Your task to perform on an android device: delete location history Image 0: 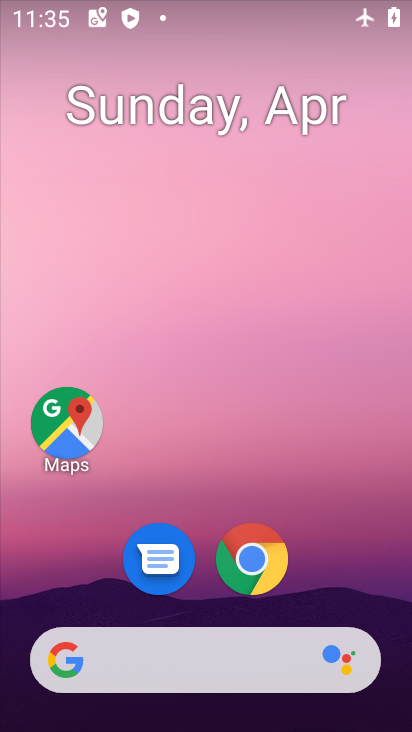
Step 0: drag from (325, 547) to (324, 52)
Your task to perform on an android device: delete location history Image 1: 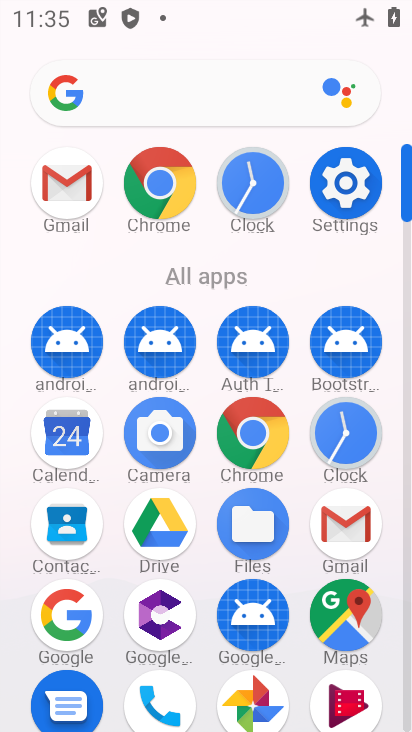
Step 1: click (332, 608)
Your task to perform on an android device: delete location history Image 2: 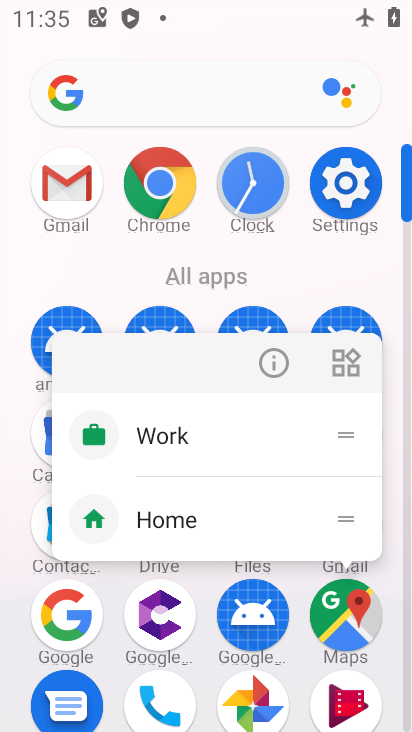
Step 2: click (332, 608)
Your task to perform on an android device: delete location history Image 3: 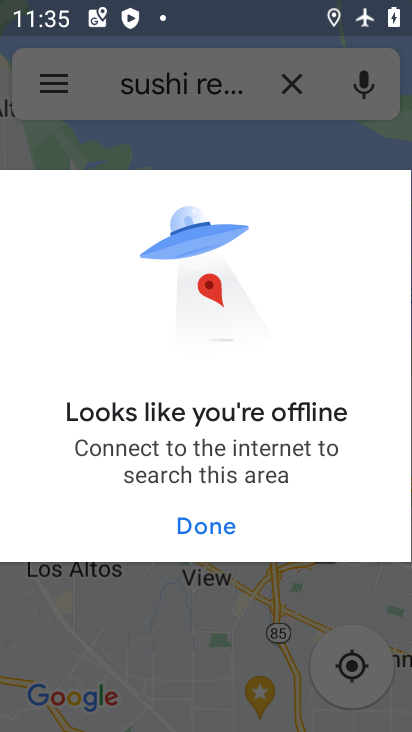
Step 3: press back button
Your task to perform on an android device: delete location history Image 4: 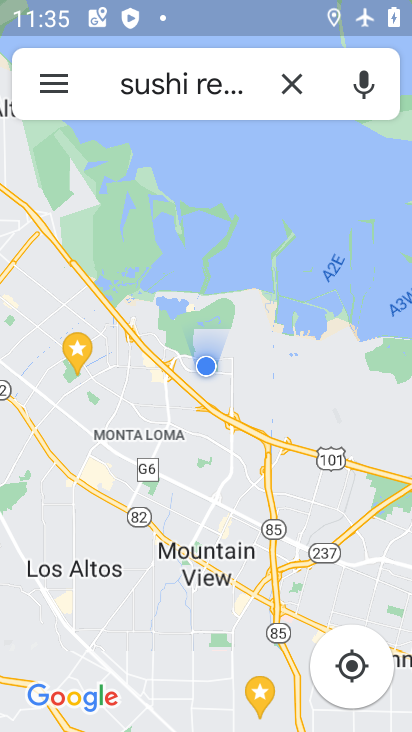
Step 4: click (54, 95)
Your task to perform on an android device: delete location history Image 5: 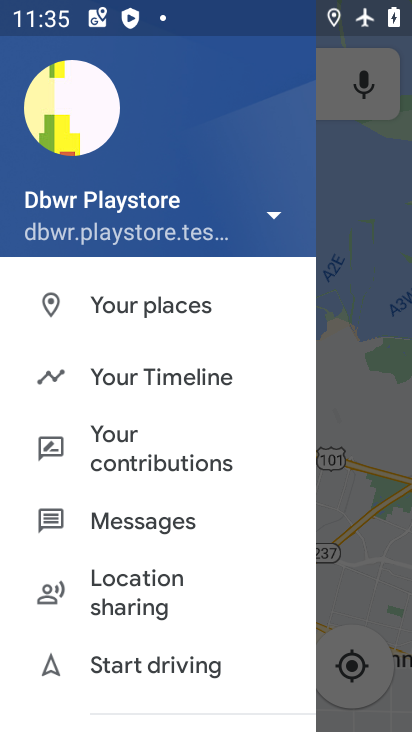
Step 5: click (146, 378)
Your task to perform on an android device: delete location history Image 6: 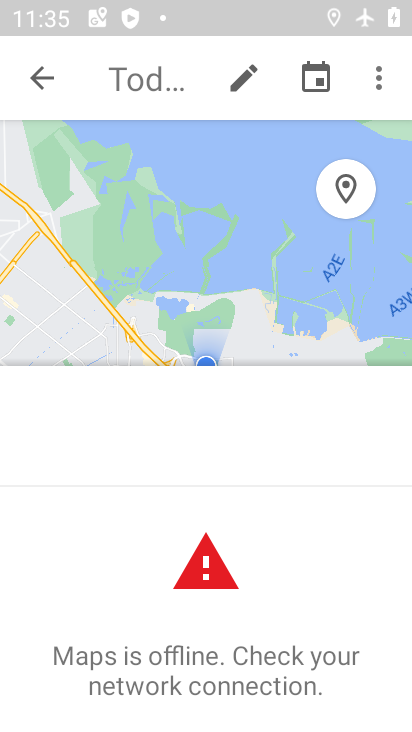
Step 6: click (371, 69)
Your task to perform on an android device: delete location history Image 7: 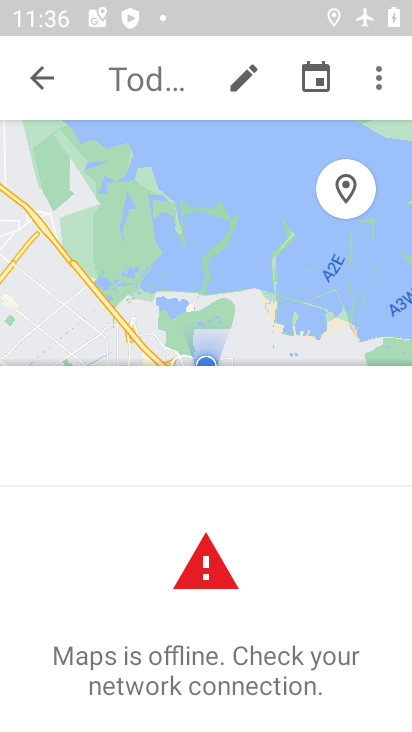
Step 7: click (371, 69)
Your task to perform on an android device: delete location history Image 8: 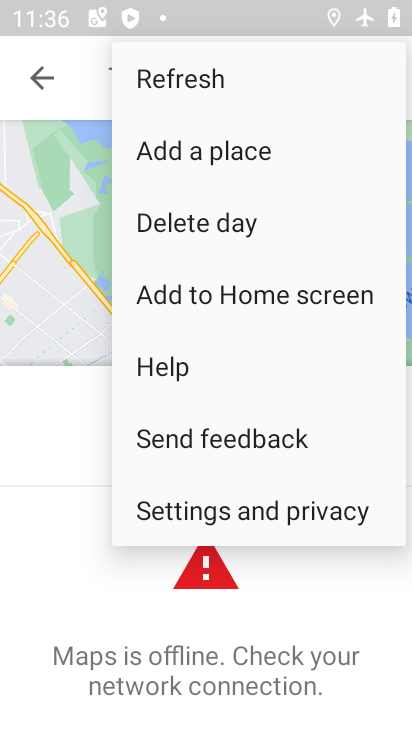
Step 8: click (178, 522)
Your task to perform on an android device: delete location history Image 9: 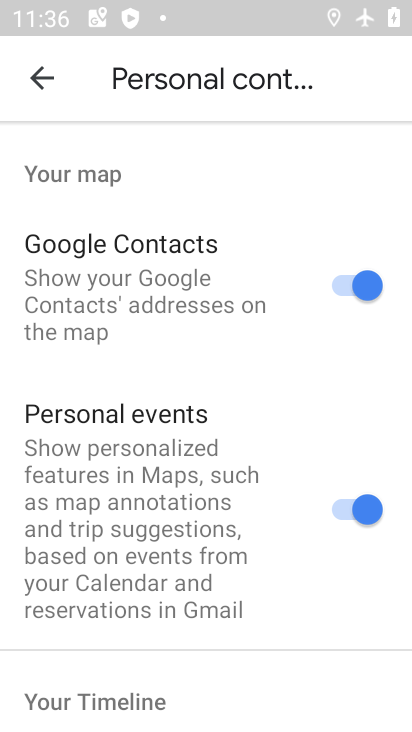
Step 9: drag from (158, 568) to (157, 236)
Your task to perform on an android device: delete location history Image 10: 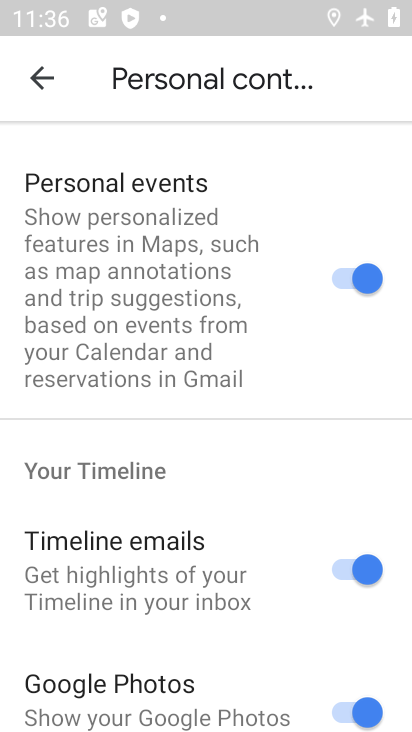
Step 10: drag from (165, 452) to (166, 188)
Your task to perform on an android device: delete location history Image 11: 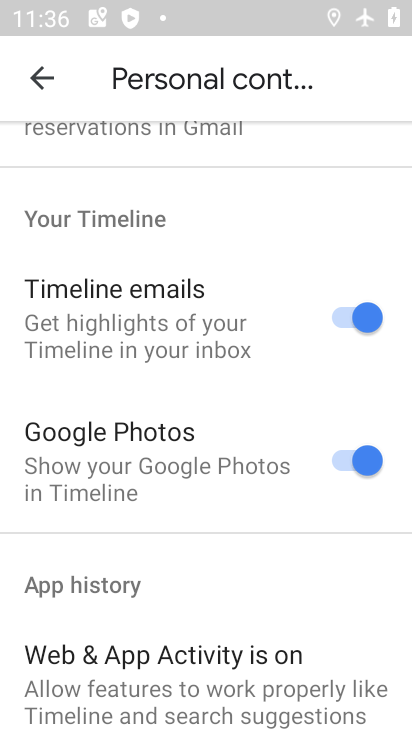
Step 11: drag from (168, 656) to (199, 272)
Your task to perform on an android device: delete location history Image 12: 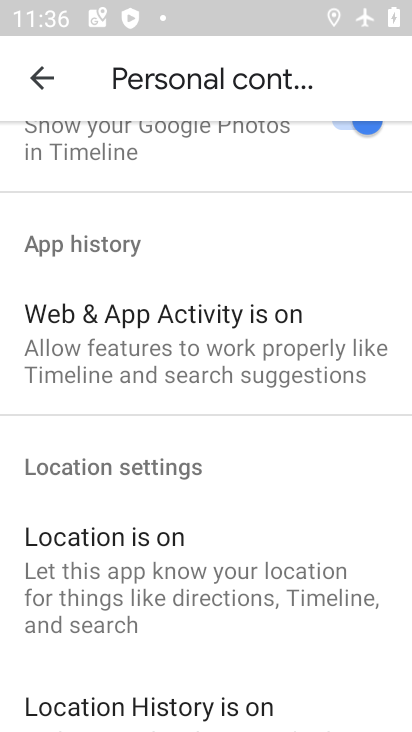
Step 12: drag from (190, 640) to (183, 306)
Your task to perform on an android device: delete location history Image 13: 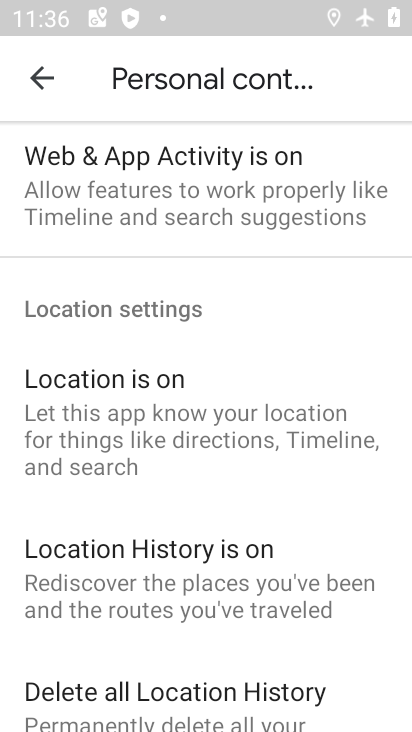
Step 13: click (157, 687)
Your task to perform on an android device: delete location history Image 14: 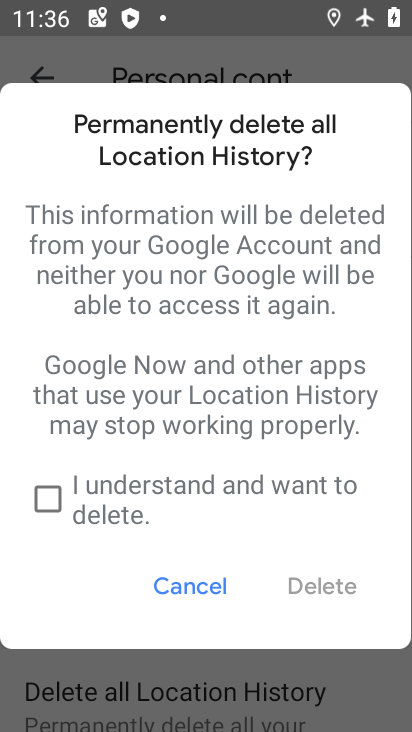
Step 14: click (50, 488)
Your task to perform on an android device: delete location history Image 15: 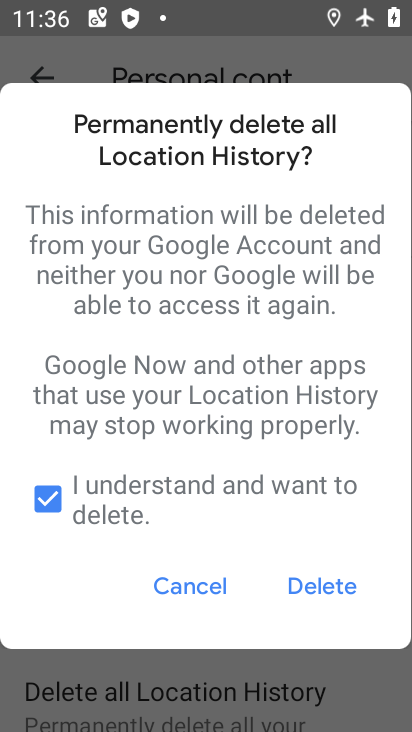
Step 15: click (297, 588)
Your task to perform on an android device: delete location history Image 16: 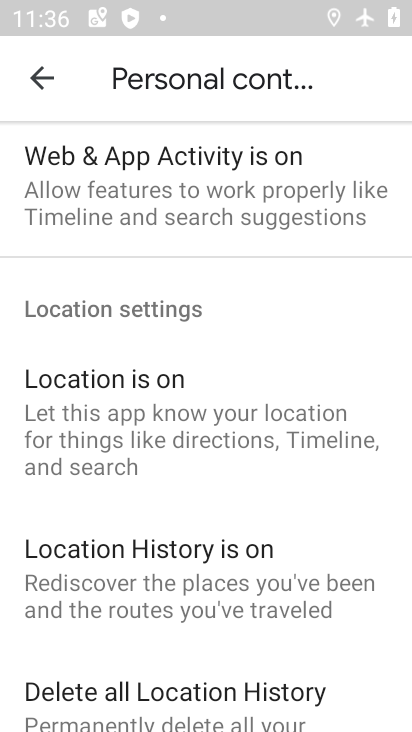
Step 16: task complete